Your task to perform on an android device: Go to Android settings Image 0: 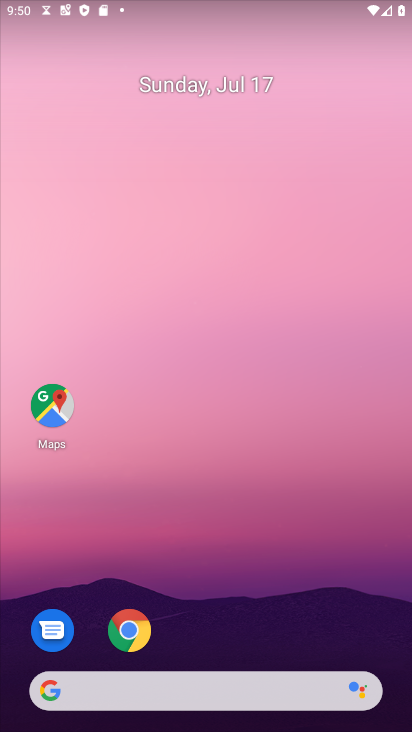
Step 0: drag from (224, 605) to (256, 22)
Your task to perform on an android device: Go to Android settings Image 1: 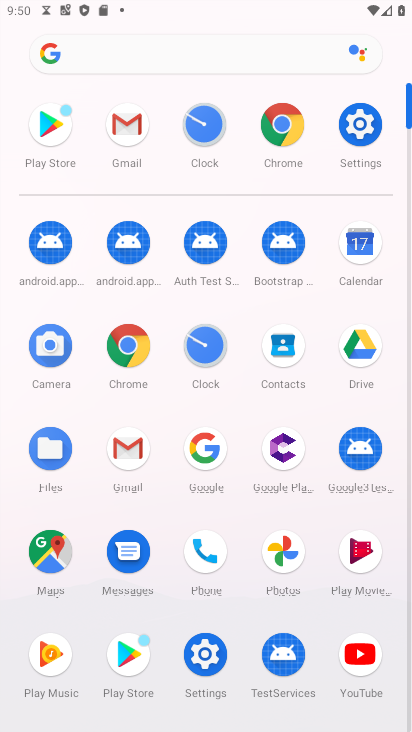
Step 1: click (372, 121)
Your task to perform on an android device: Go to Android settings Image 2: 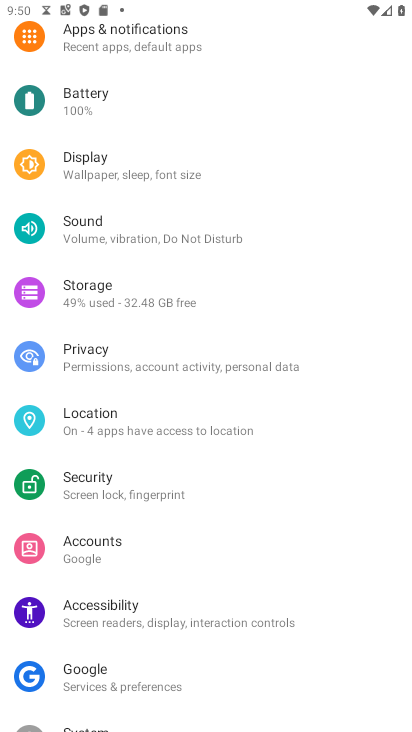
Step 2: drag from (149, 646) to (166, 222)
Your task to perform on an android device: Go to Android settings Image 3: 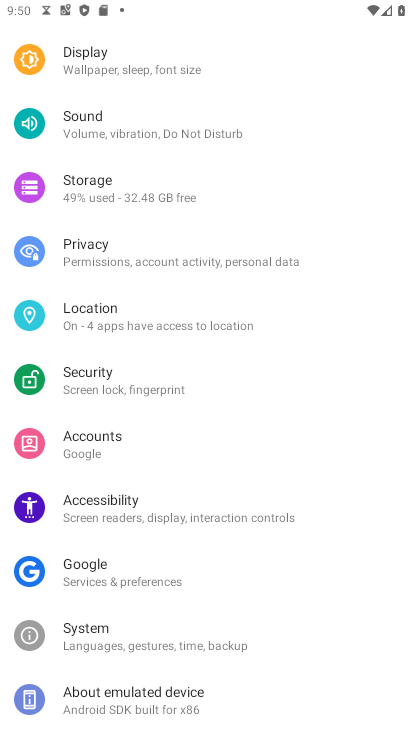
Step 3: click (179, 696)
Your task to perform on an android device: Go to Android settings Image 4: 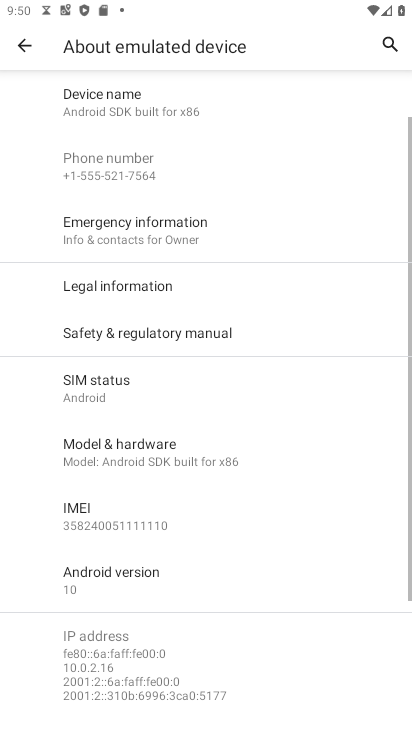
Step 4: task complete